Your task to perform on an android device: What is the recent news? Image 0: 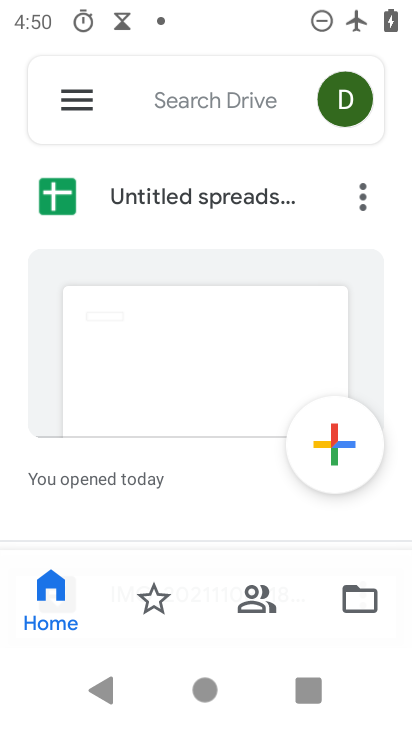
Step 0: press home button
Your task to perform on an android device: What is the recent news? Image 1: 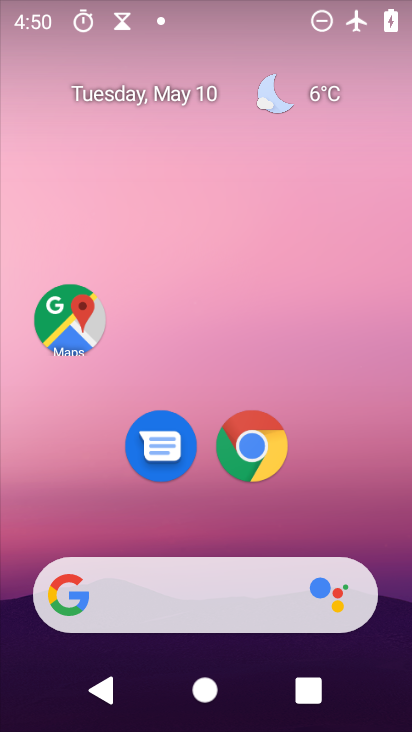
Step 1: drag from (216, 497) to (215, 152)
Your task to perform on an android device: What is the recent news? Image 2: 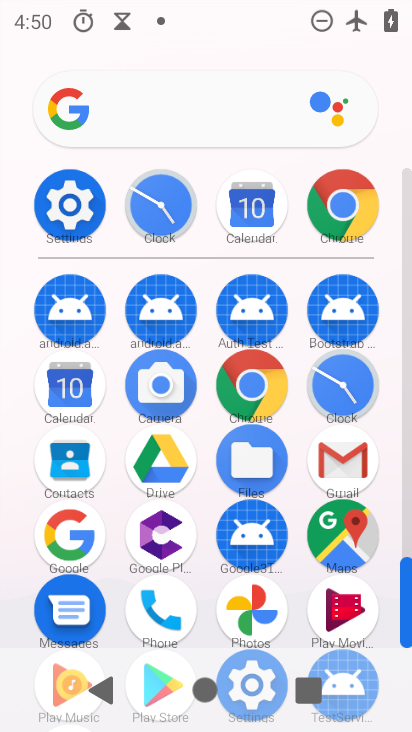
Step 2: click (87, 536)
Your task to perform on an android device: What is the recent news? Image 3: 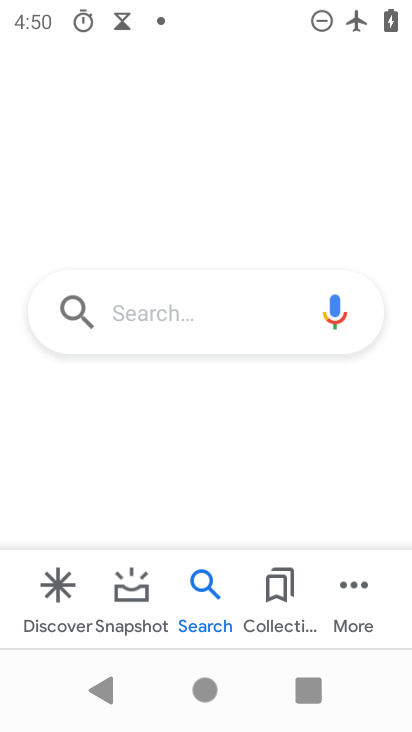
Step 3: click (184, 325)
Your task to perform on an android device: What is the recent news? Image 4: 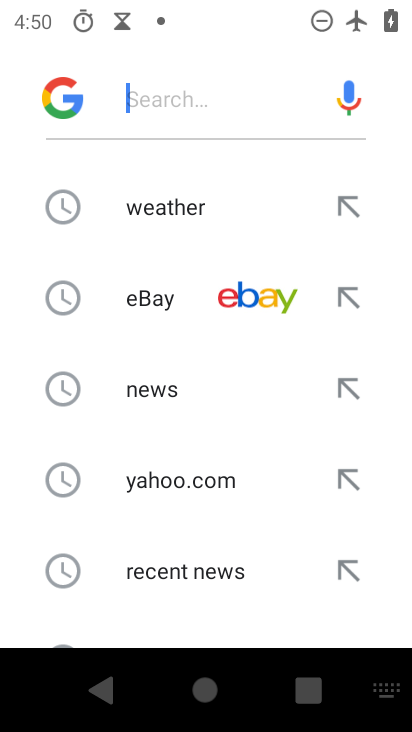
Step 4: click (164, 379)
Your task to perform on an android device: What is the recent news? Image 5: 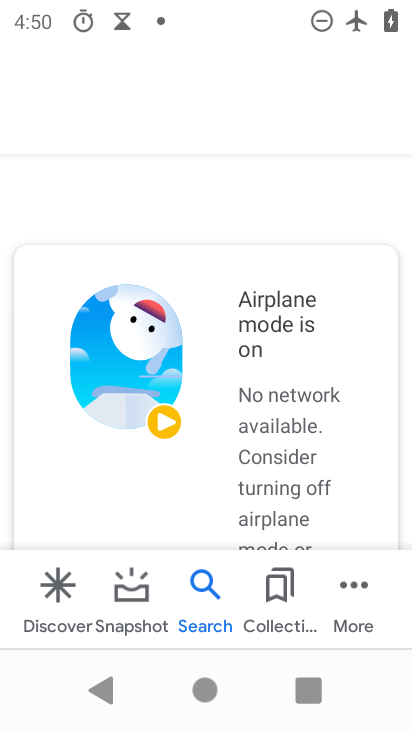
Step 5: task complete